Your task to perform on an android device: check android version Image 0: 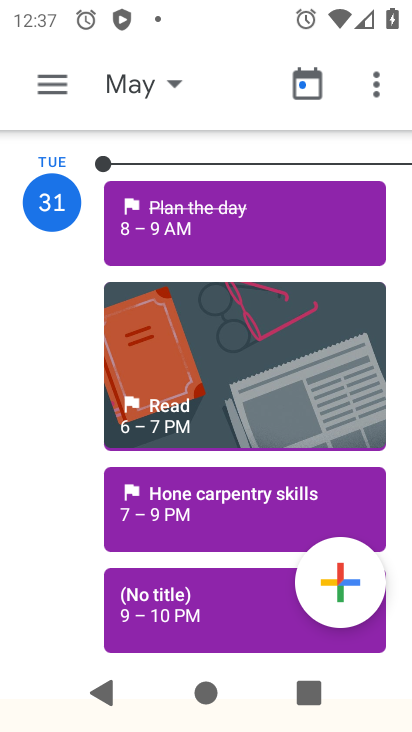
Step 0: press home button
Your task to perform on an android device: check android version Image 1: 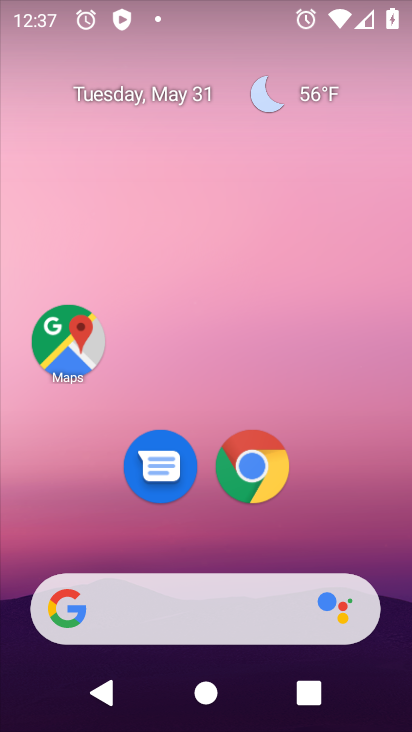
Step 1: drag from (210, 616) to (182, 49)
Your task to perform on an android device: check android version Image 2: 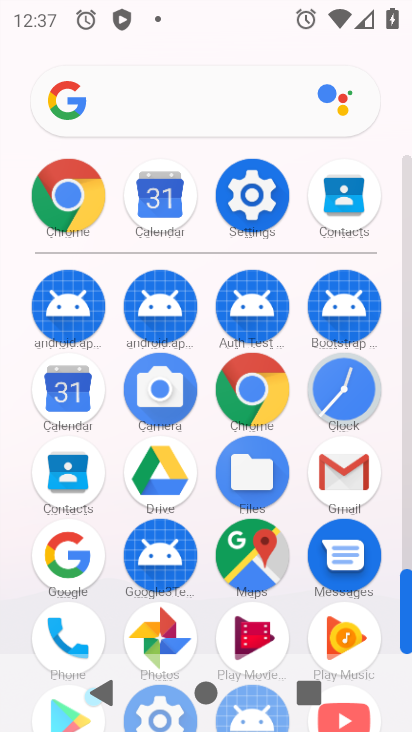
Step 2: click (258, 208)
Your task to perform on an android device: check android version Image 3: 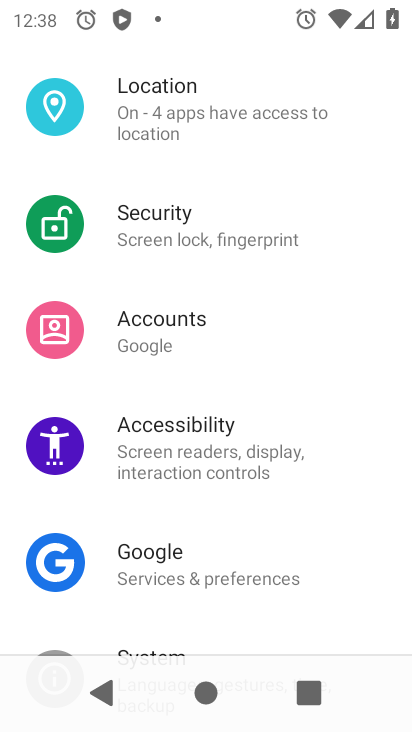
Step 3: drag from (177, 641) to (48, 10)
Your task to perform on an android device: check android version Image 4: 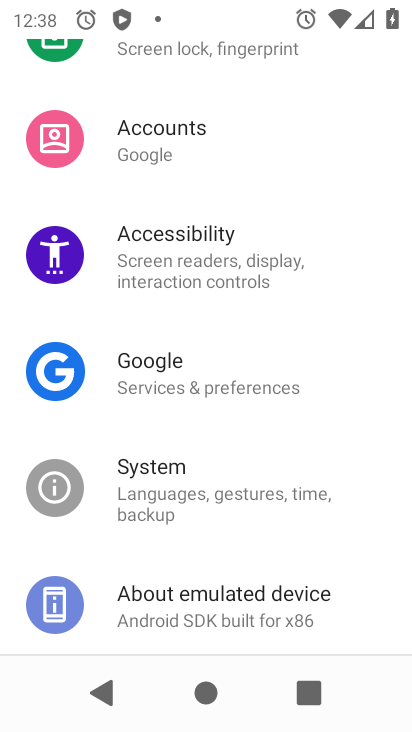
Step 4: click (146, 580)
Your task to perform on an android device: check android version Image 5: 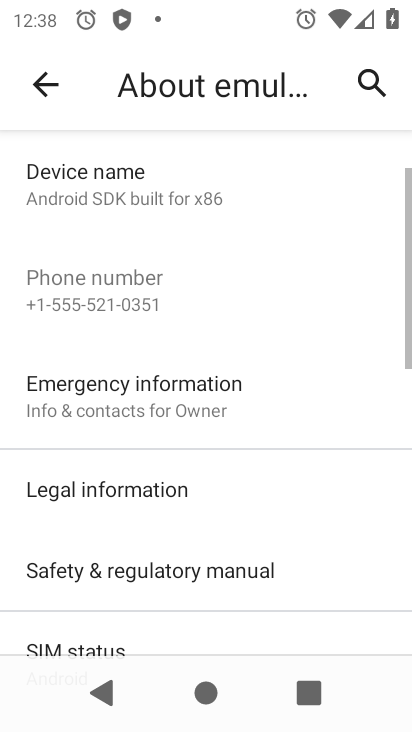
Step 5: drag from (248, 526) to (193, 36)
Your task to perform on an android device: check android version Image 6: 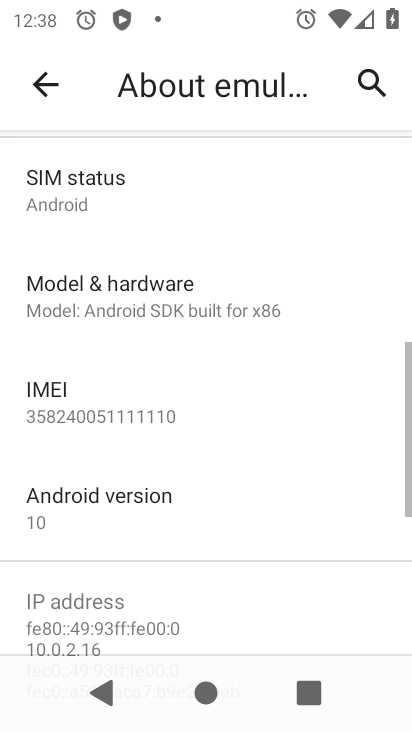
Step 6: click (132, 531)
Your task to perform on an android device: check android version Image 7: 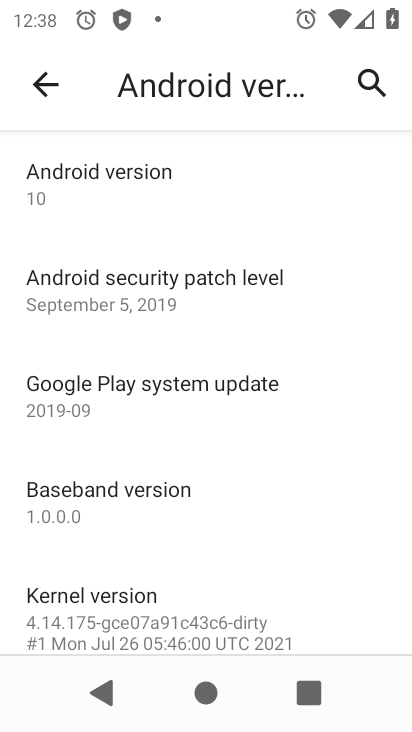
Step 7: task complete